Your task to perform on an android device: Open the calendar app, open the side menu, and click the "Day" option Image 0: 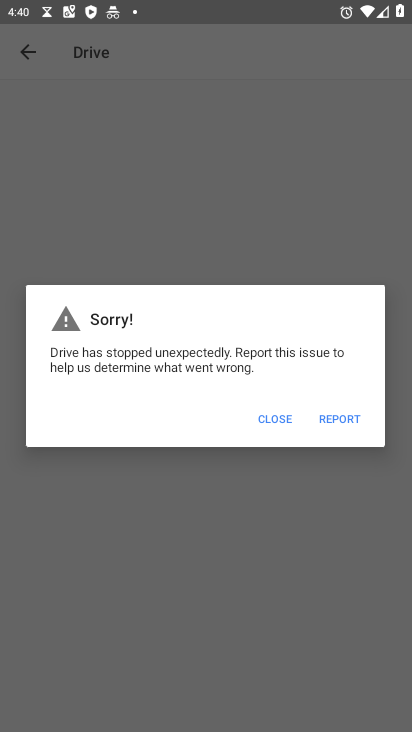
Step 0: click (273, 410)
Your task to perform on an android device: Open the calendar app, open the side menu, and click the "Day" option Image 1: 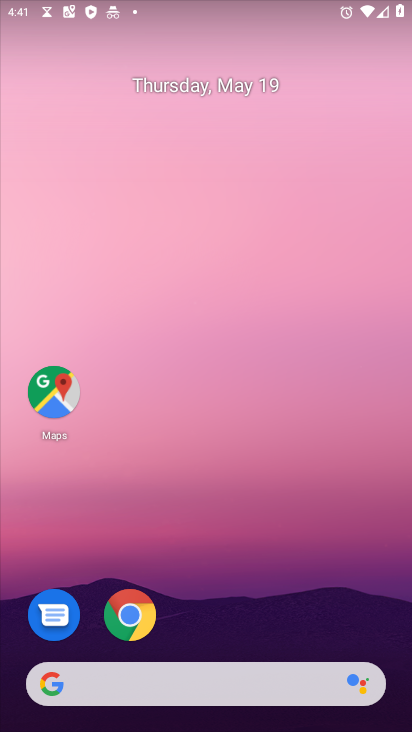
Step 1: drag from (284, 626) to (276, 212)
Your task to perform on an android device: Open the calendar app, open the side menu, and click the "Day" option Image 2: 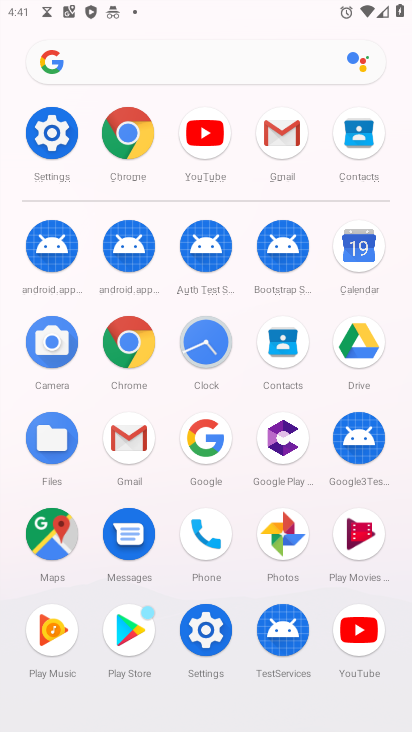
Step 2: click (356, 249)
Your task to perform on an android device: Open the calendar app, open the side menu, and click the "Day" option Image 3: 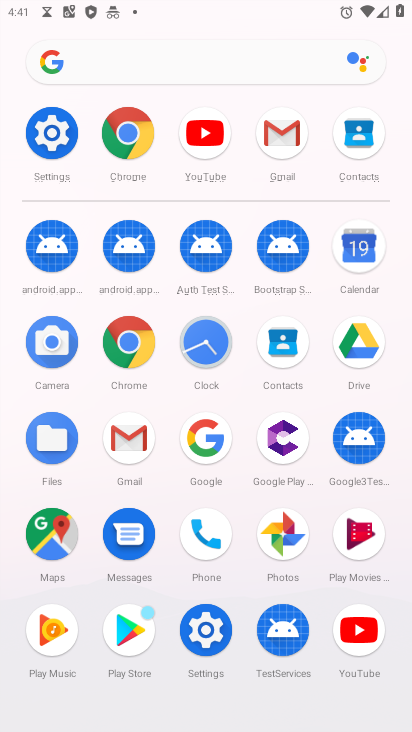
Step 3: click (357, 248)
Your task to perform on an android device: Open the calendar app, open the side menu, and click the "Day" option Image 4: 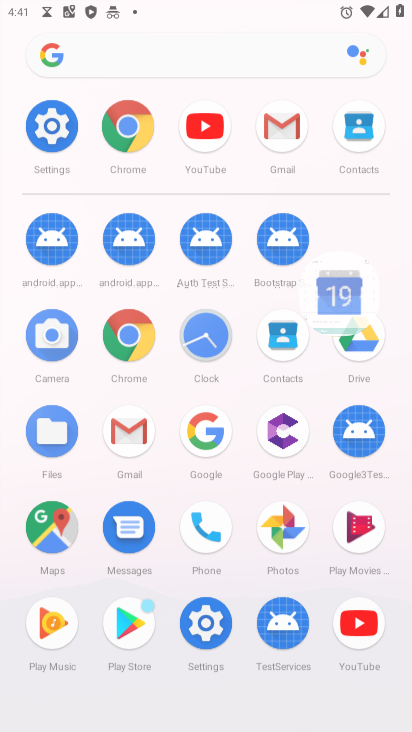
Step 4: click (357, 248)
Your task to perform on an android device: Open the calendar app, open the side menu, and click the "Day" option Image 5: 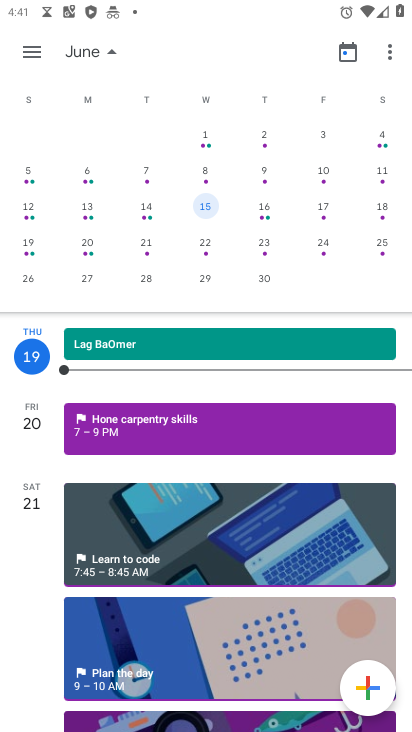
Step 5: click (23, 42)
Your task to perform on an android device: Open the calendar app, open the side menu, and click the "Day" option Image 6: 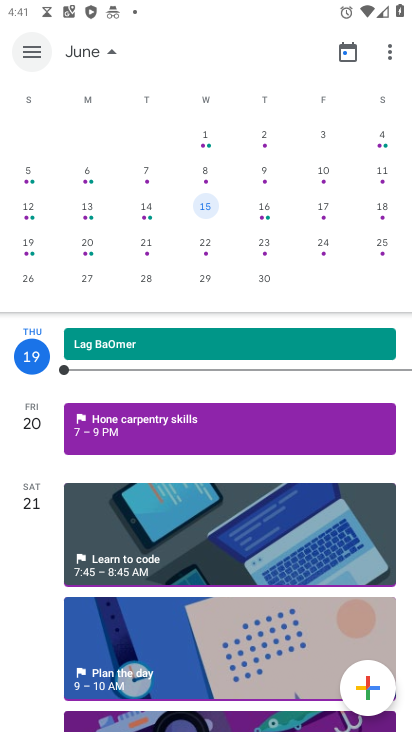
Step 6: click (31, 43)
Your task to perform on an android device: Open the calendar app, open the side menu, and click the "Day" option Image 7: 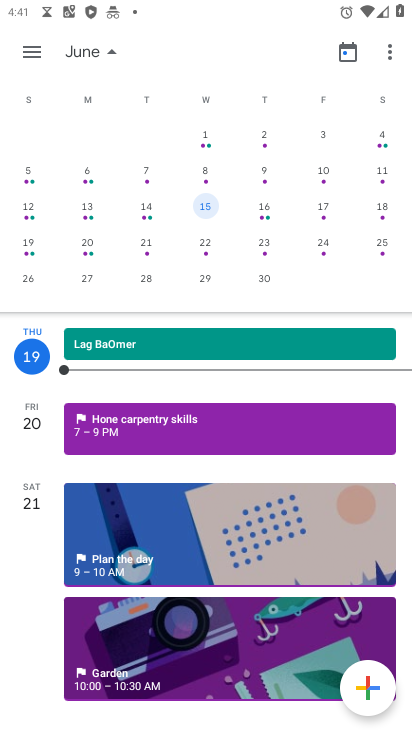
Step 7: click (39, 49)
Your task to perform on an android device: Open the calendar app, open the side menu, and click the "Day" option Image 8: 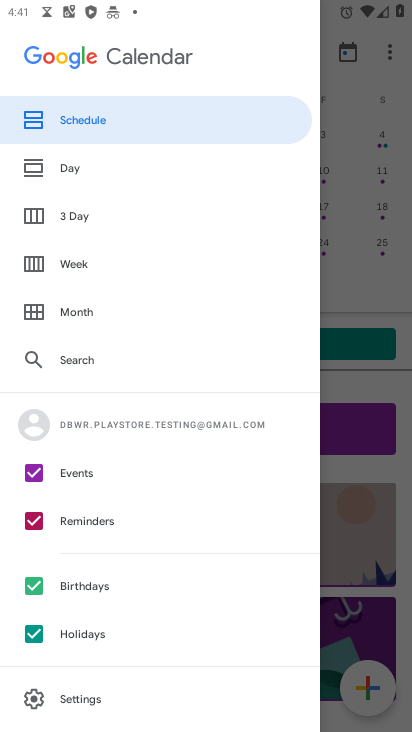
Step 8: click (68, 168)
Your task to perform on an android device: Open the calendar app, open the side menu, and click the "Day" option Image 9: 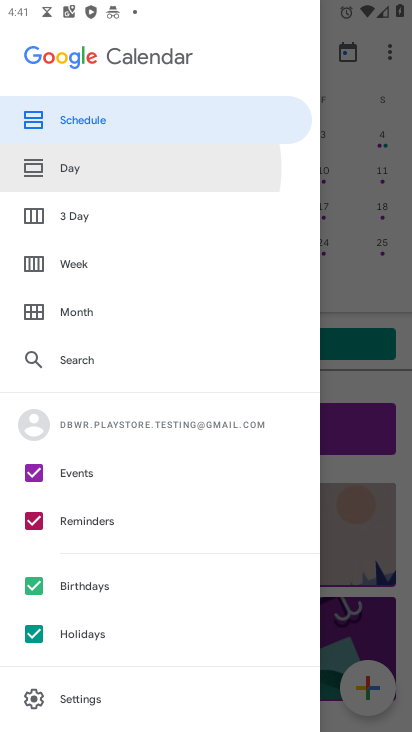
Step 9: click (68, 168)
Your task to perform on an android device: Open the calendar app, open the side menu, and click the "Day" option Image 10: 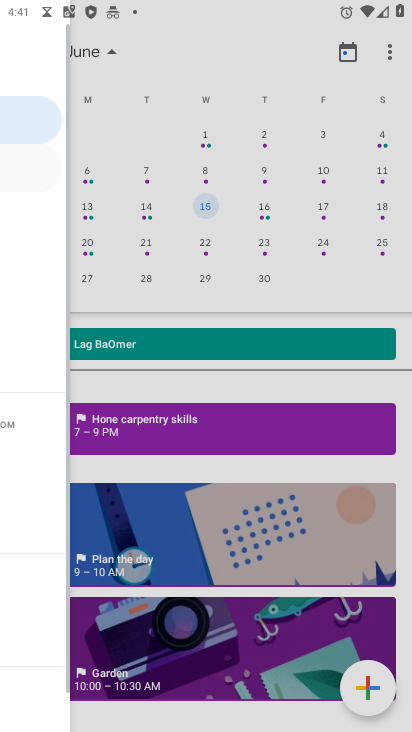
Step 10: click (68, 168)
Your task to perform on an android device: Open the calendar app, open the side menu, and click the "Day" option Image 11: 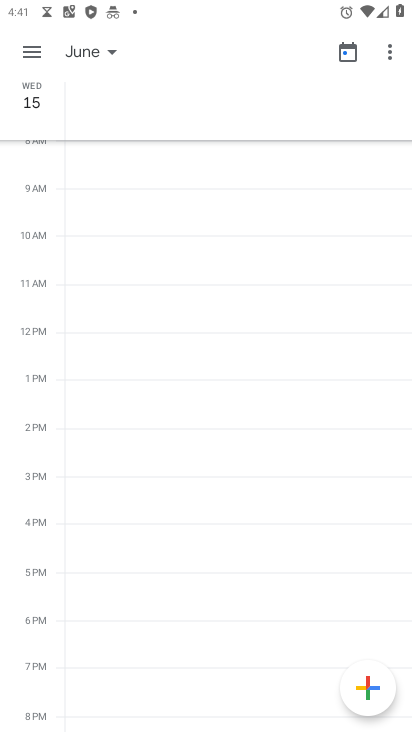
Step 11: task complete